Your task to perform on an android device: Go to Amazon Image 0: 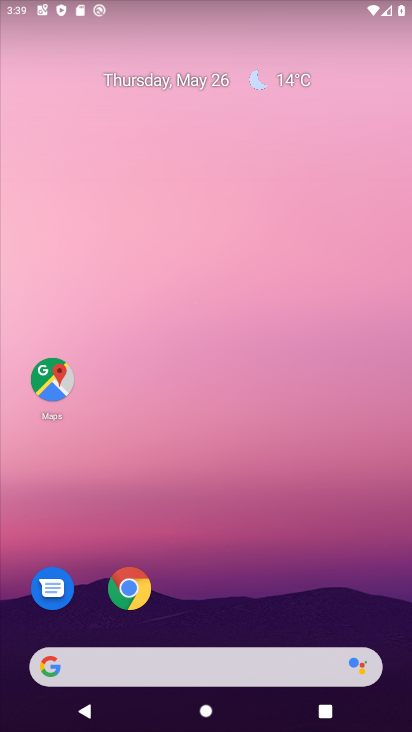
Step 0: click (145, 661)
Your task to perform on an android device: Go to Amazon Image 1: 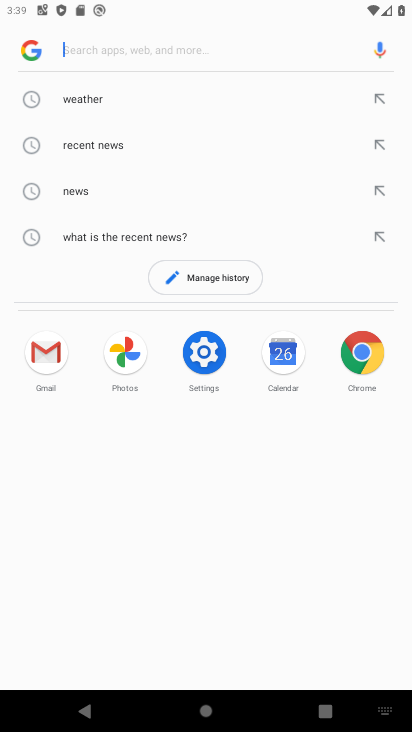
Step 1: type "amazon"
Your task to perform on an android device: Go to Amazon Image 2: 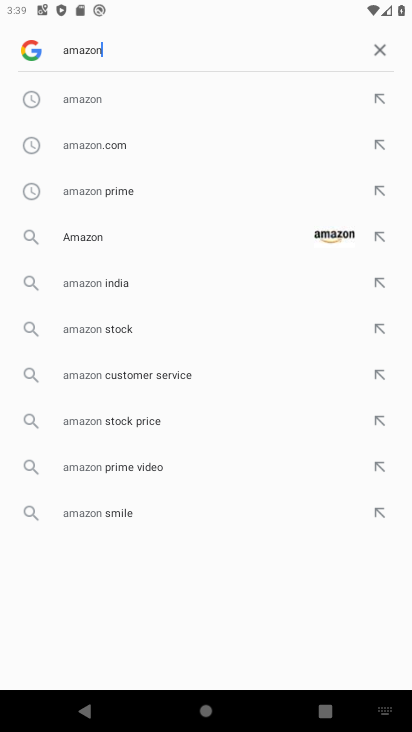
Step 2: click (129, 100)
Your task to perform on an android device: Go to Amazon Image 3: 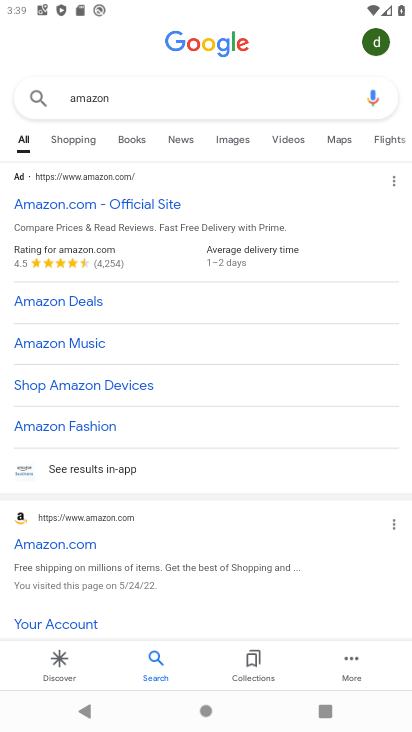
Step 3: click (74, 203)
Your task to perform on an android device: Go to Amazon Image 4: 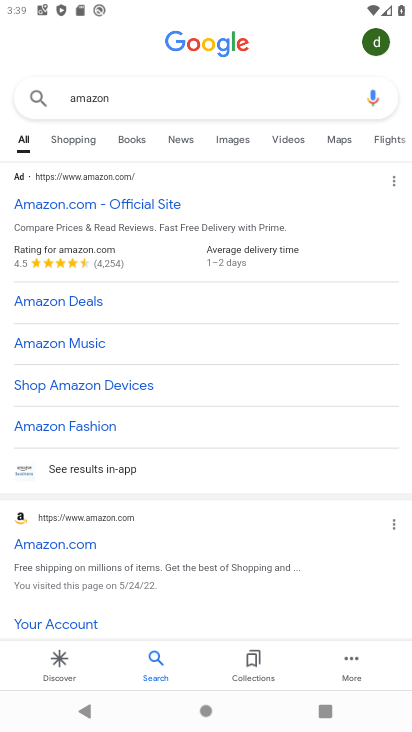
Step 4: task complete